Your task to perform on an android device: Go to display settings Image 0: 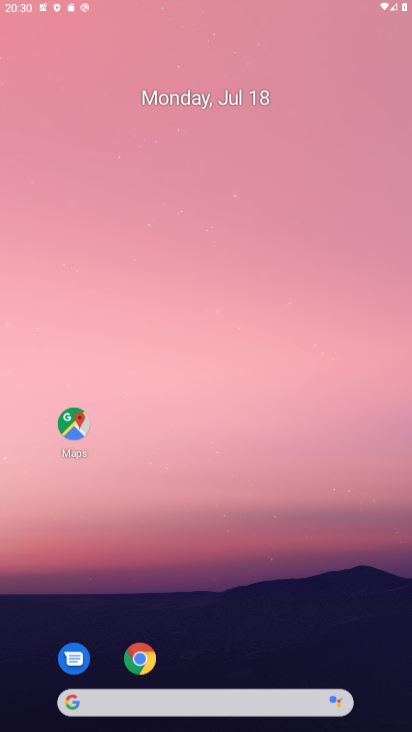
Step 0: drag from (175, 249) to (162, 155)
Your task to perform on an android device: Go to display settings Image 1: 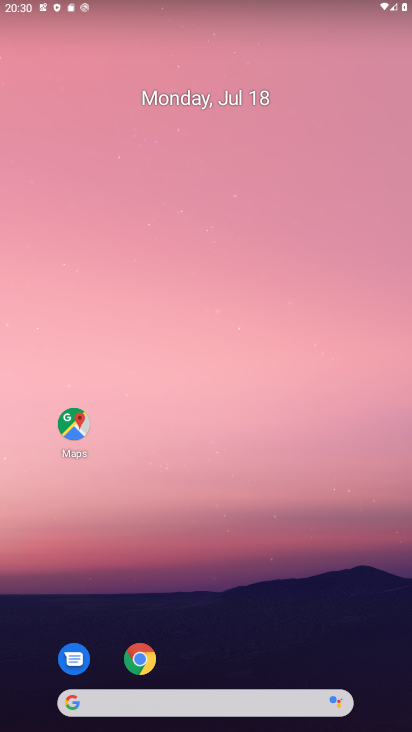
Step 1: drag from (265, 614) to (201, 74)
Your task to perform on an android device: Go to display settings Image 2: 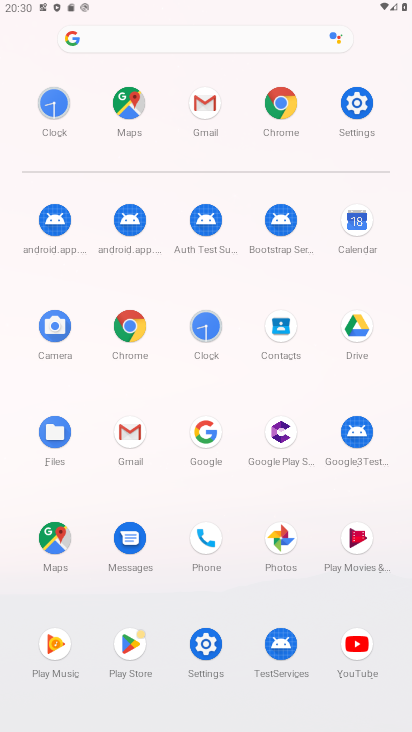
Step 2: click (357, 115)
Your task to perform on an android device: Go to display settings Image 3: 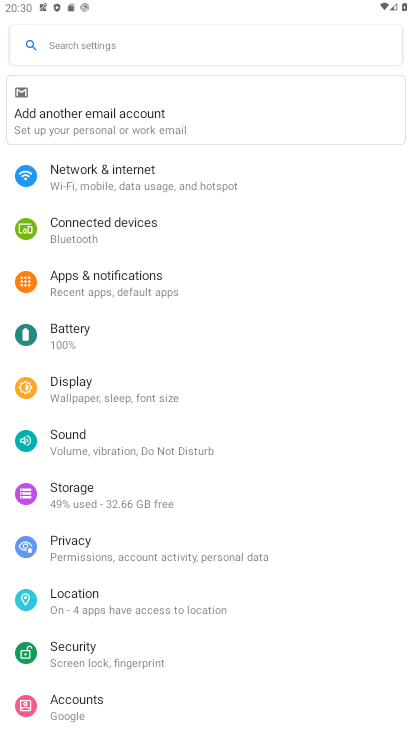
Step 3: click (71, 397)
Your task to perform on an android device: Go to display settings Image 4: 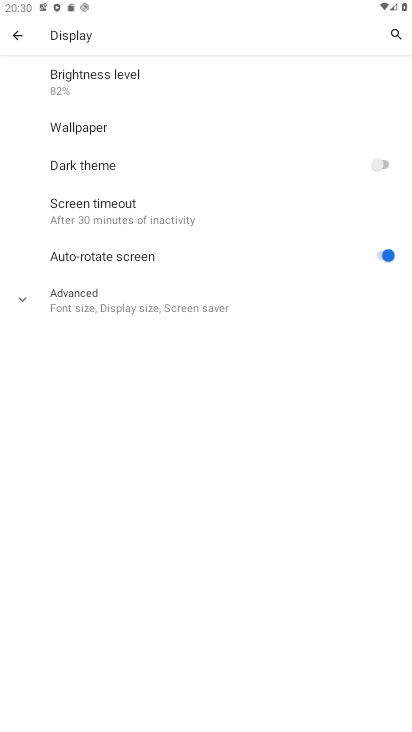
Step 4: task complete